Your task to perform on an android device: Find the nearest grocery store Image 0: 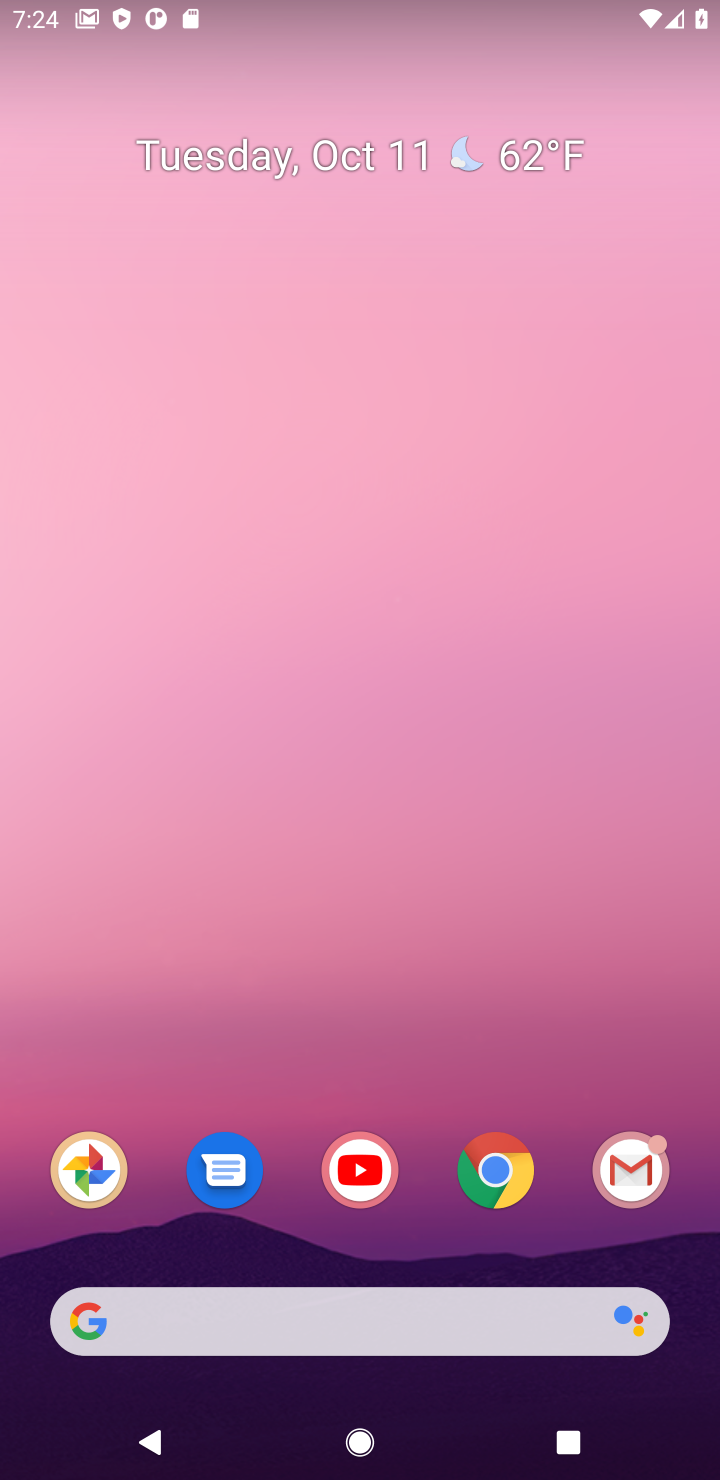
Step 0: drag from (251, 1274) to (279, 353)
Your task to perform on an android device: Find the nearest grocery store Image 1: 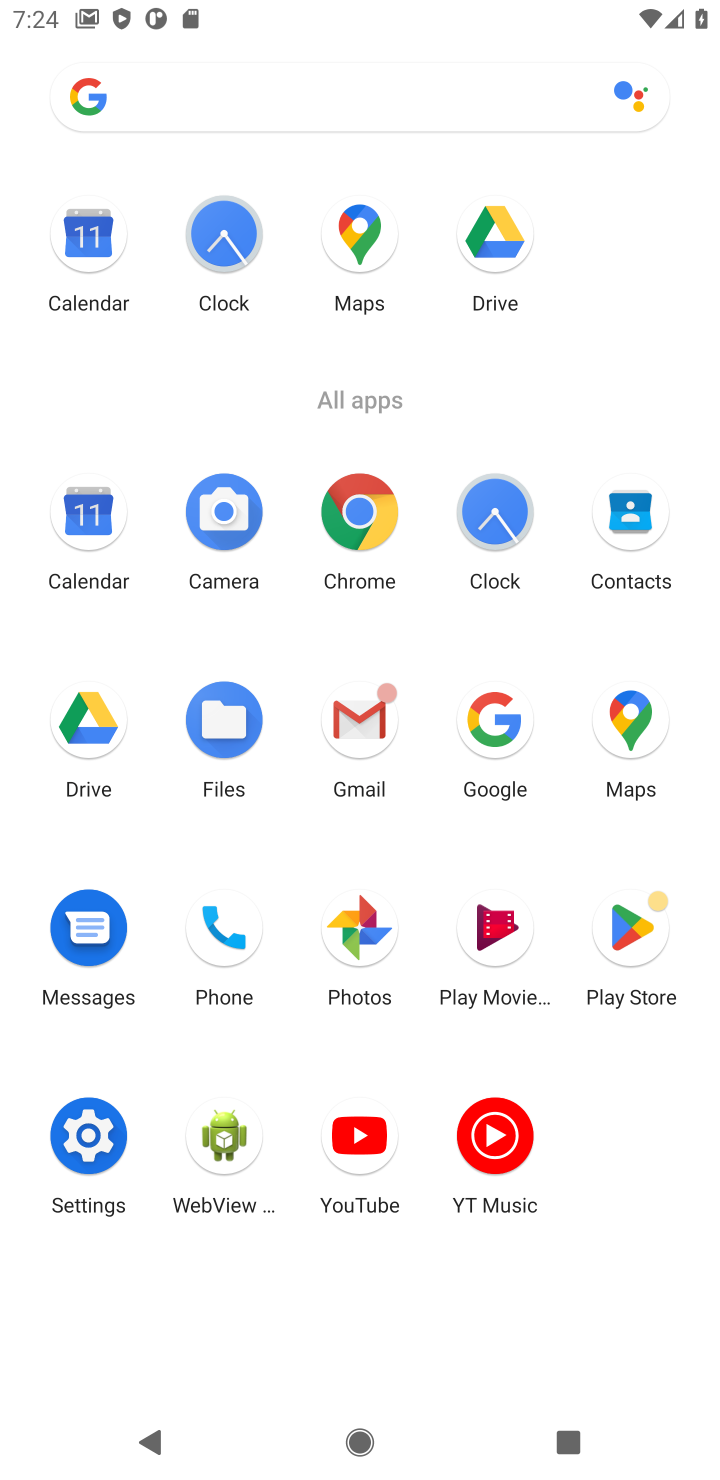
Step 1: click (483, 702)
Your task to perform on an android device: Find the nearest grocery store Image 2: 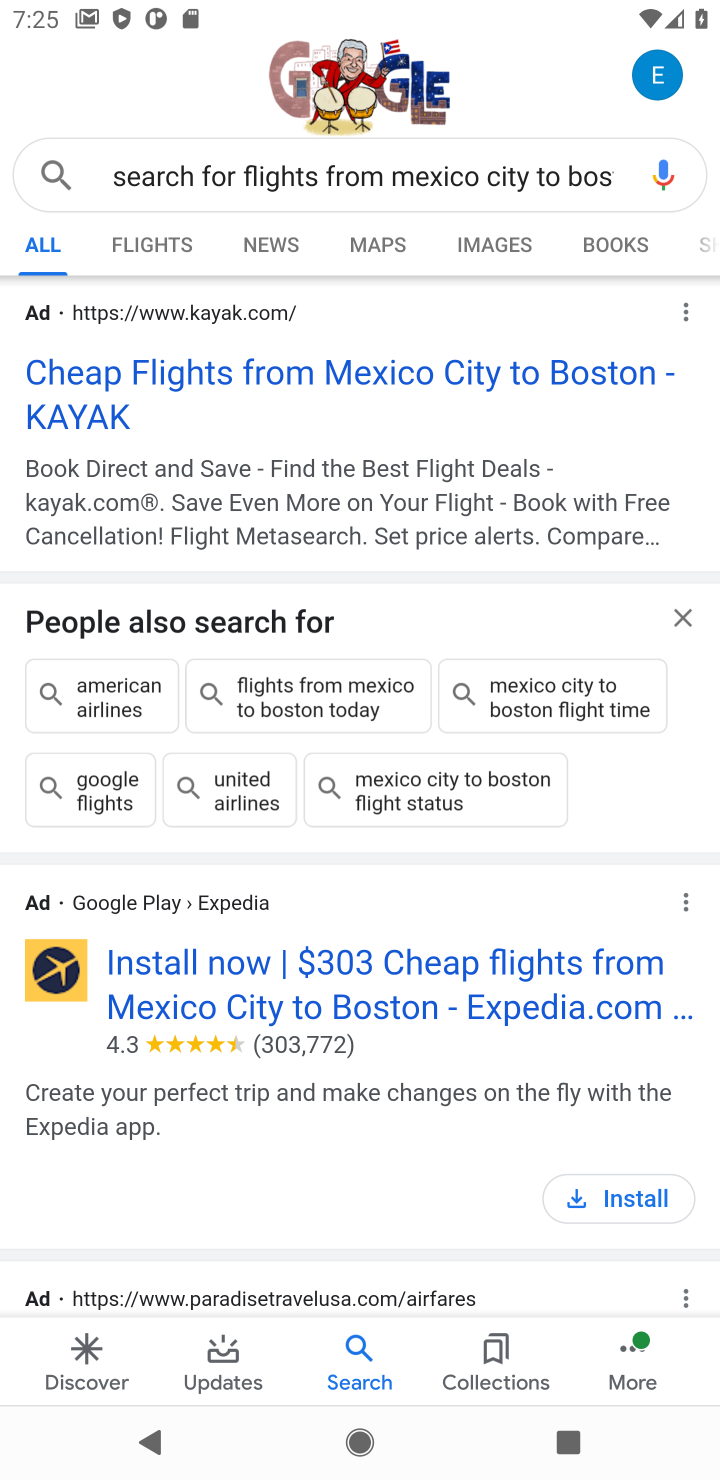
Step 2: click (434, 363)
Your task to perform on an android device: Find the nearest grocery store Image 3: 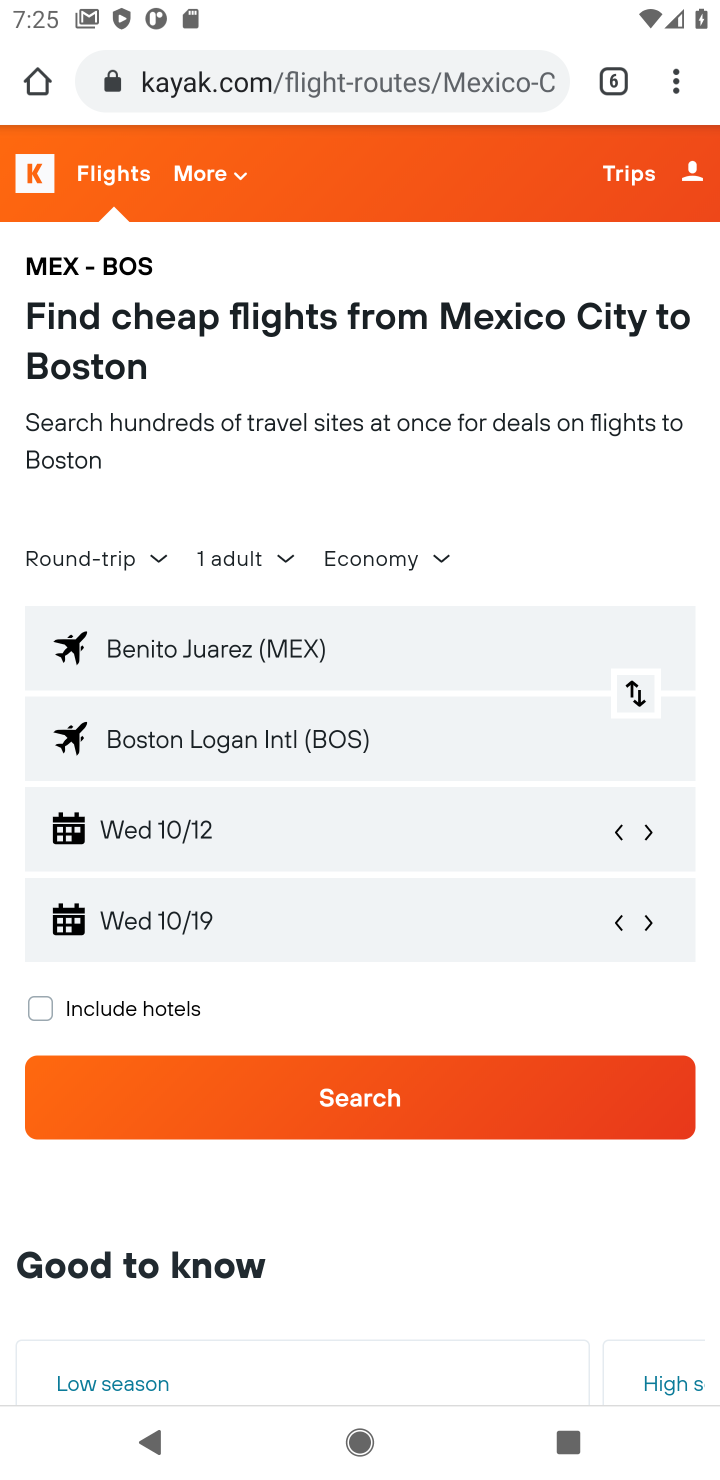
Step 3: press back button
Your task to perform on an android device: Find the nearest grocery store Image 4: 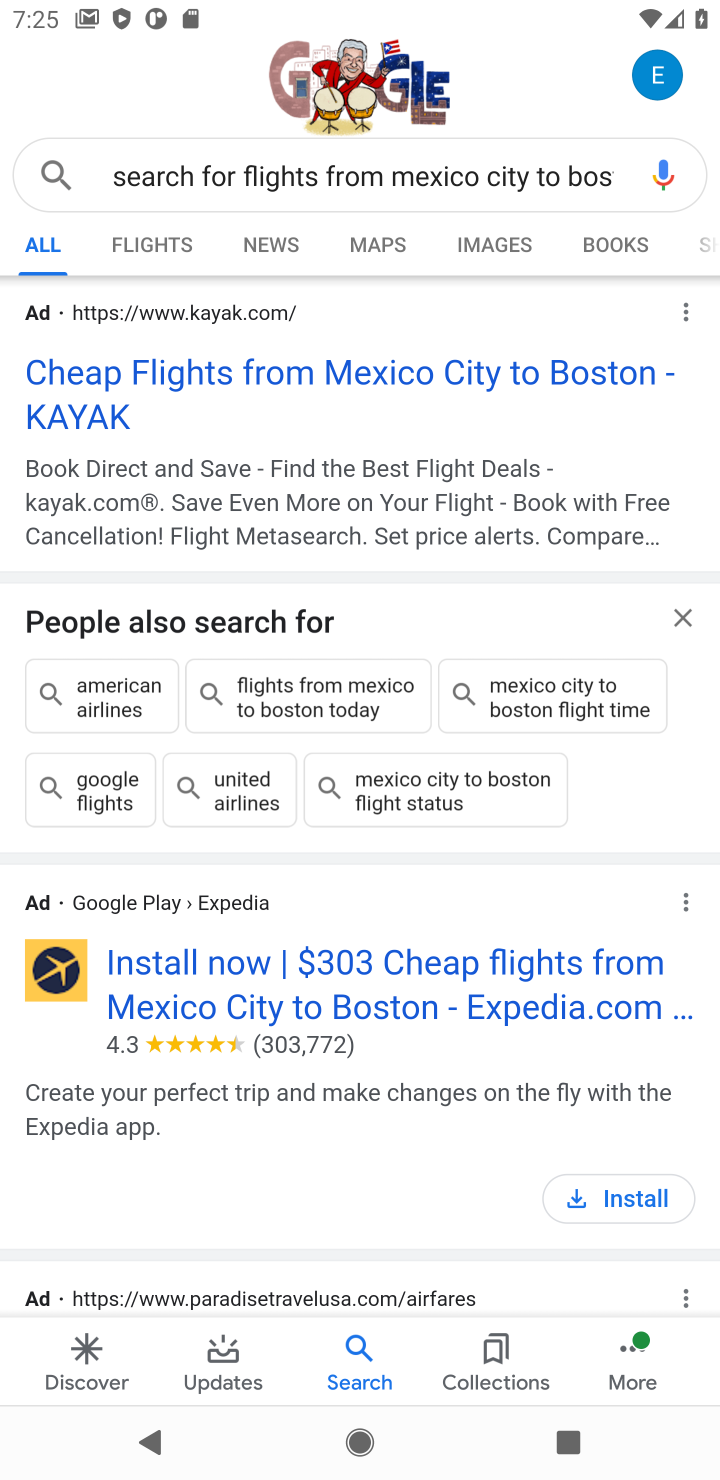
Step 4: click (341, 158)
Your task to perform on an android device: Find the nearest grocery store Image 5: 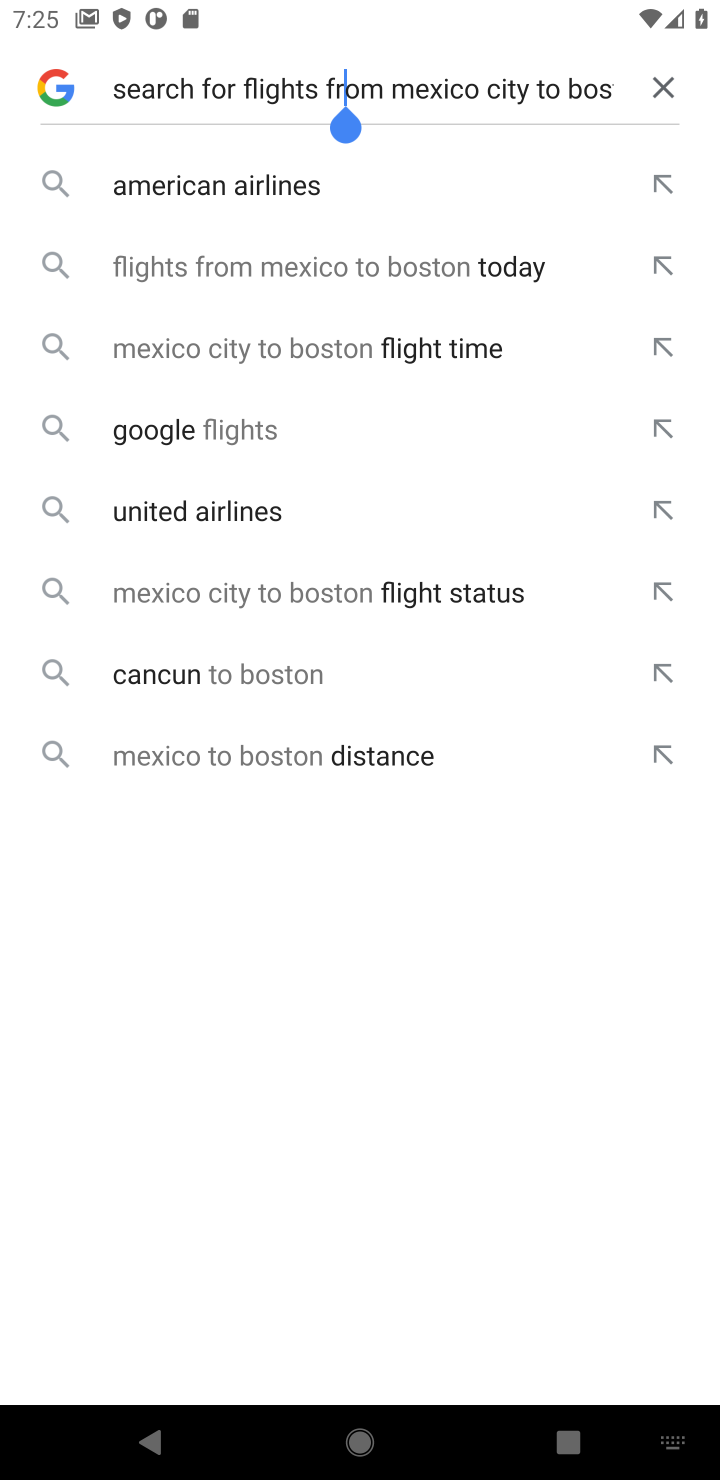
Step 5: click (660, 83)
Your task to perform on an android device: Find the nearest grocery store Image 6: 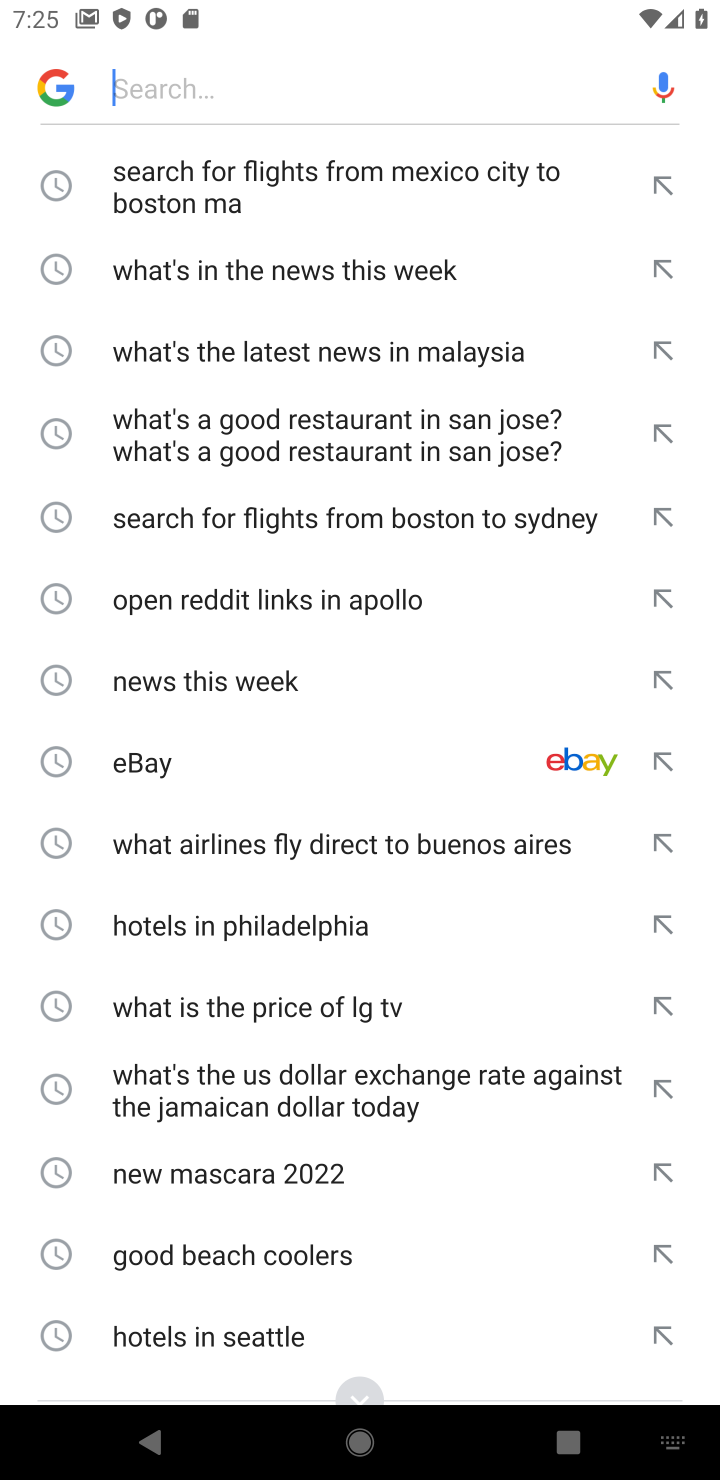
Step 6: click (328, 98)
Your task to perform on an android device: Find the nearest grocery store Image 7: 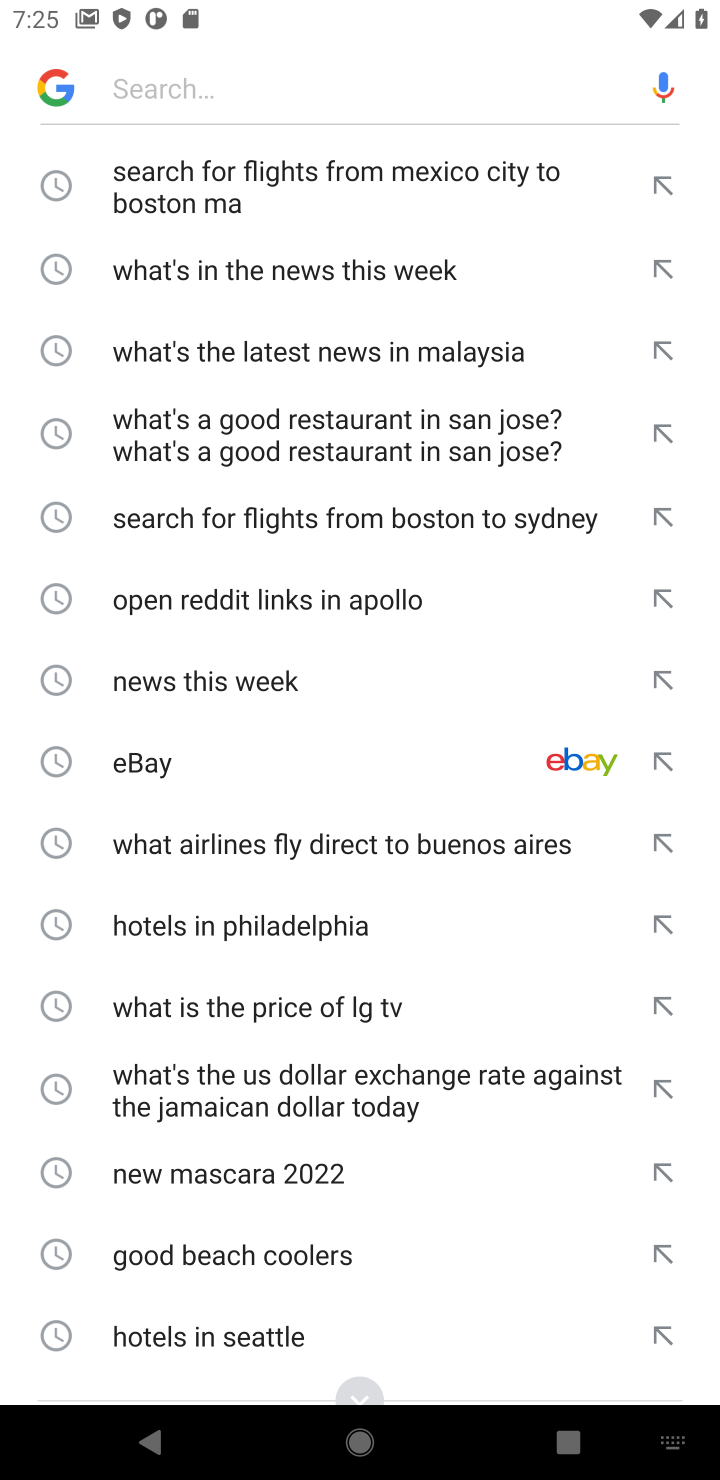
Step 7: click (328, 77)
Your task to perform on an android device: Find the nearest grocery store Image 8: 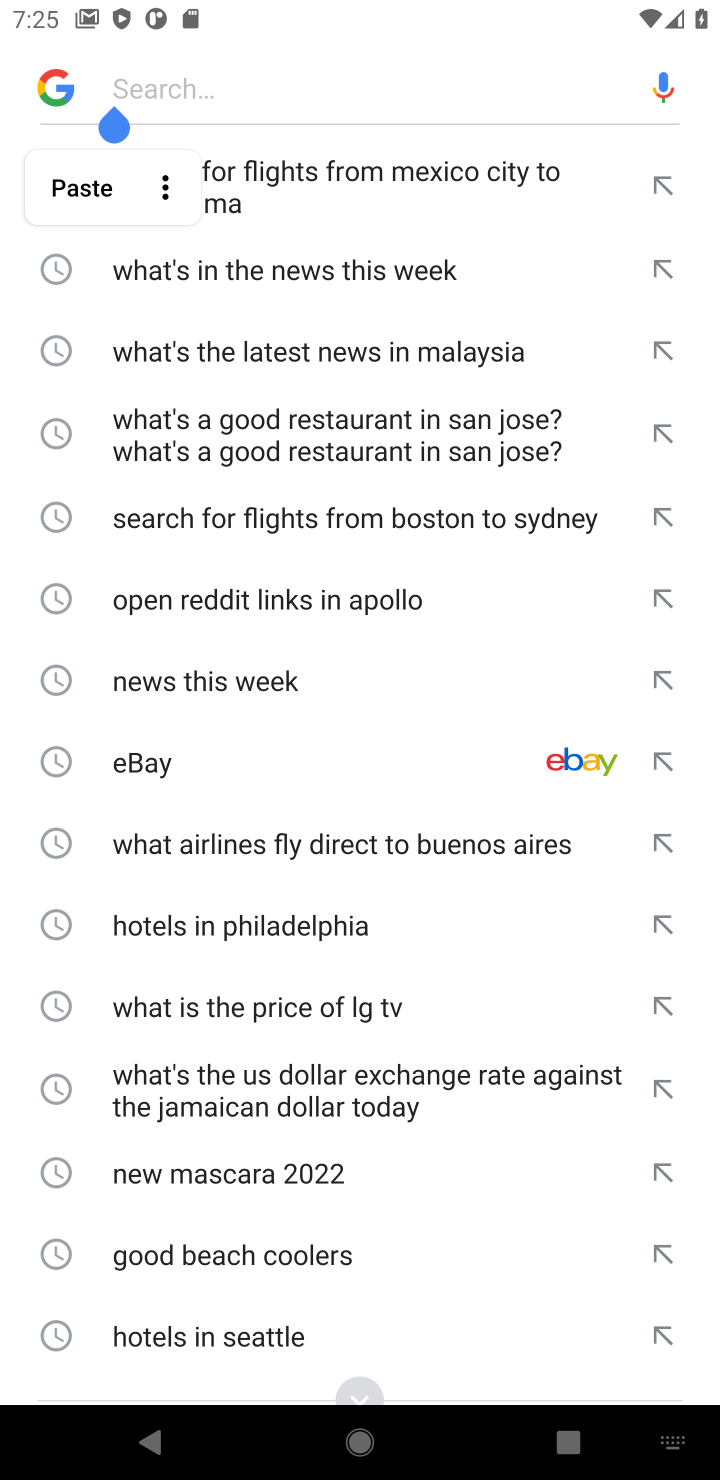
Step 8: type "Search for flights from Mexico city to Boston "
Your task to perform on an android device: Find the nearest grocery store Image 9: 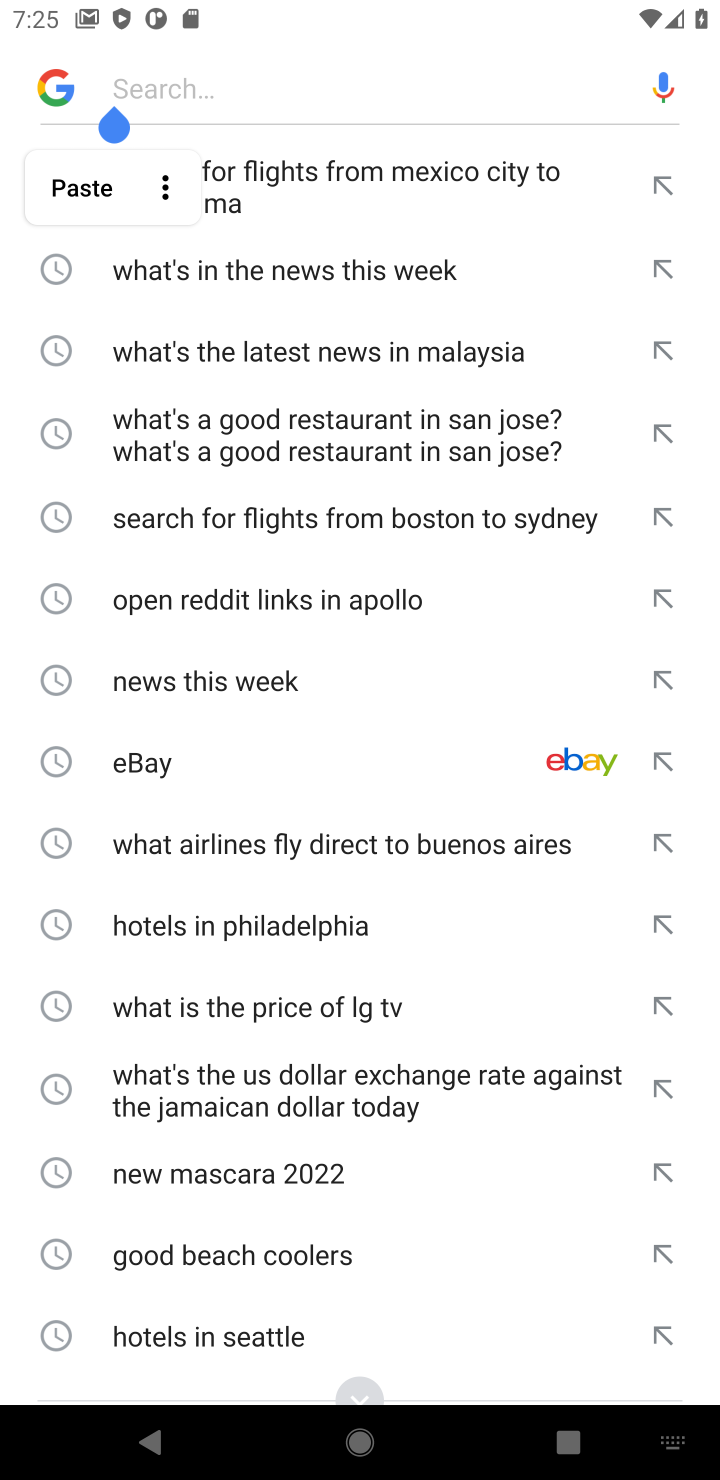
Step 9: click (94, 173)
Your task to perform on an android device: Find the nearest grocery store Image 10: 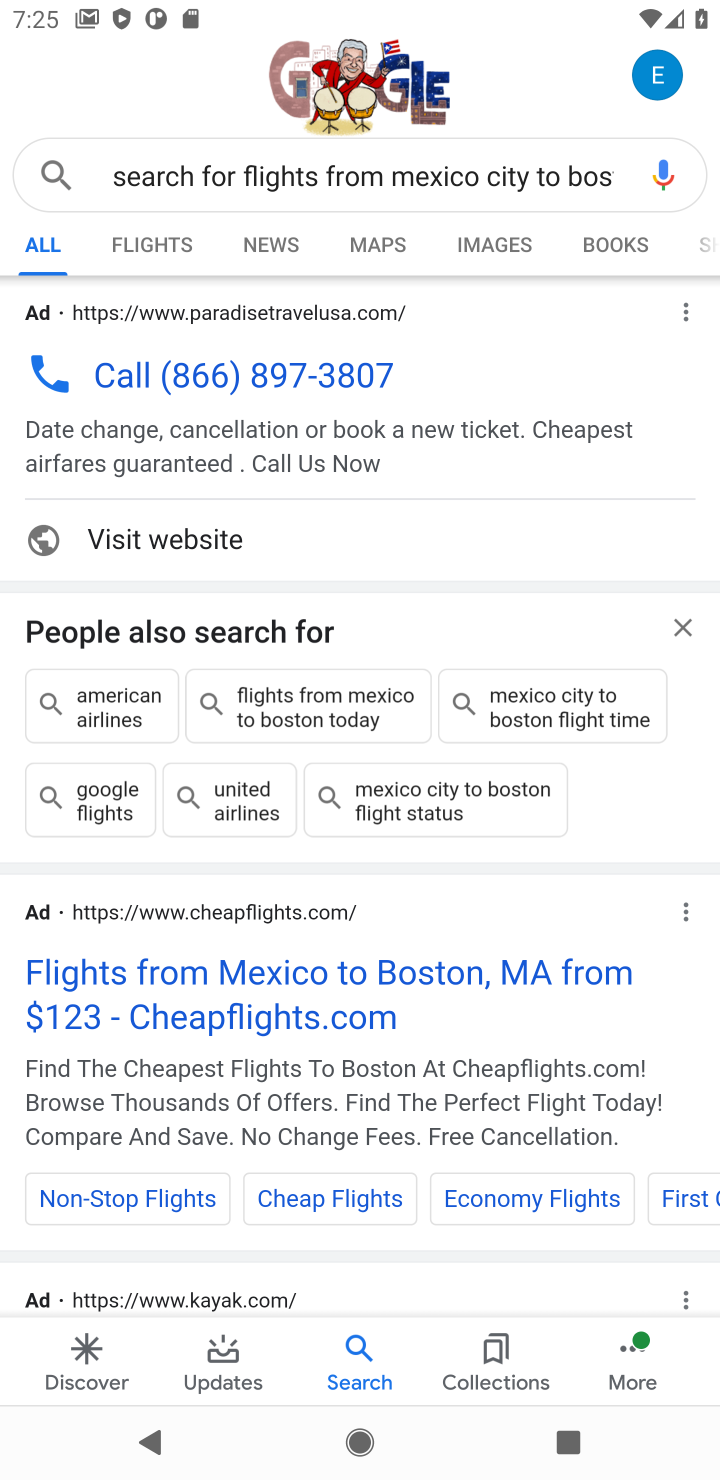
Step 10: click (278, 172)
Your task to perform on an android device: Find the nearest grocery store Image 11: 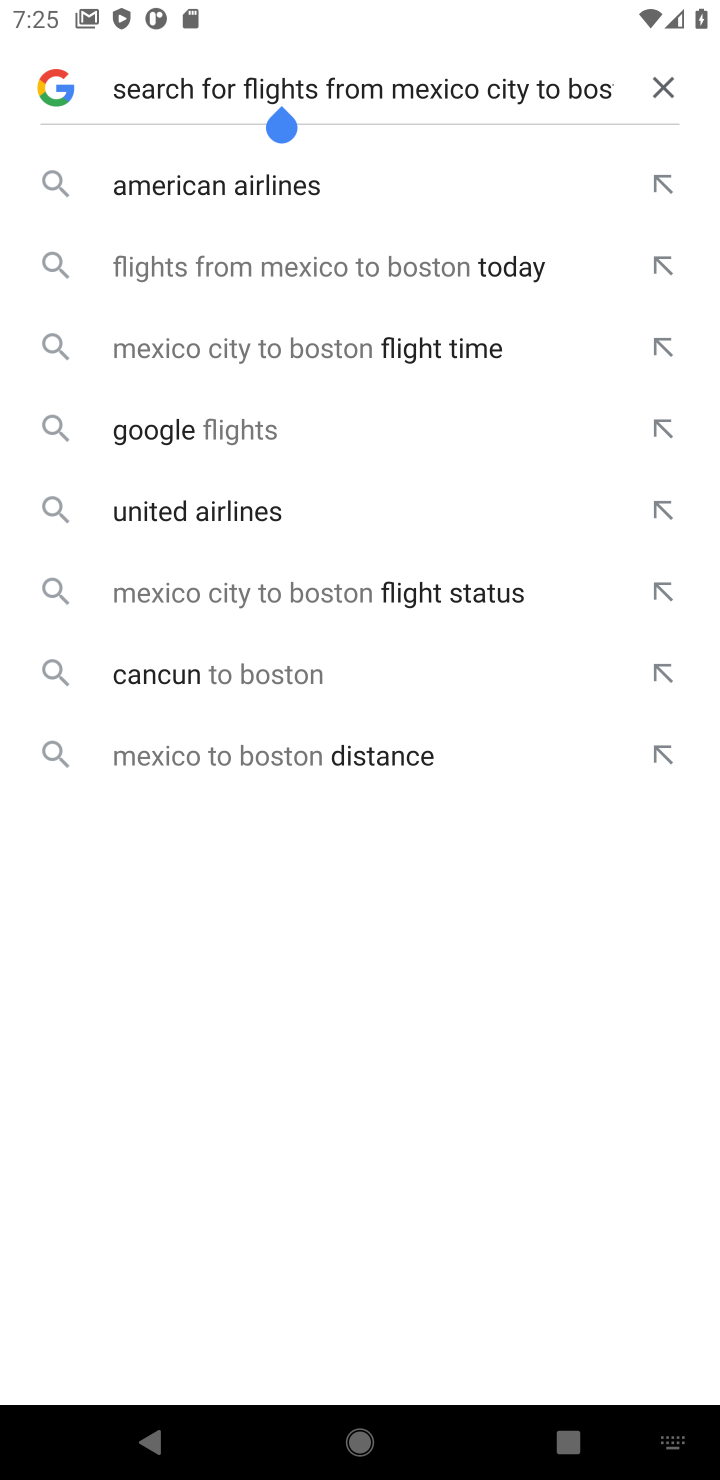
Step 11: click (658, 88)
Your task to perform on an android device: Find the nearest grocery store Image 12: 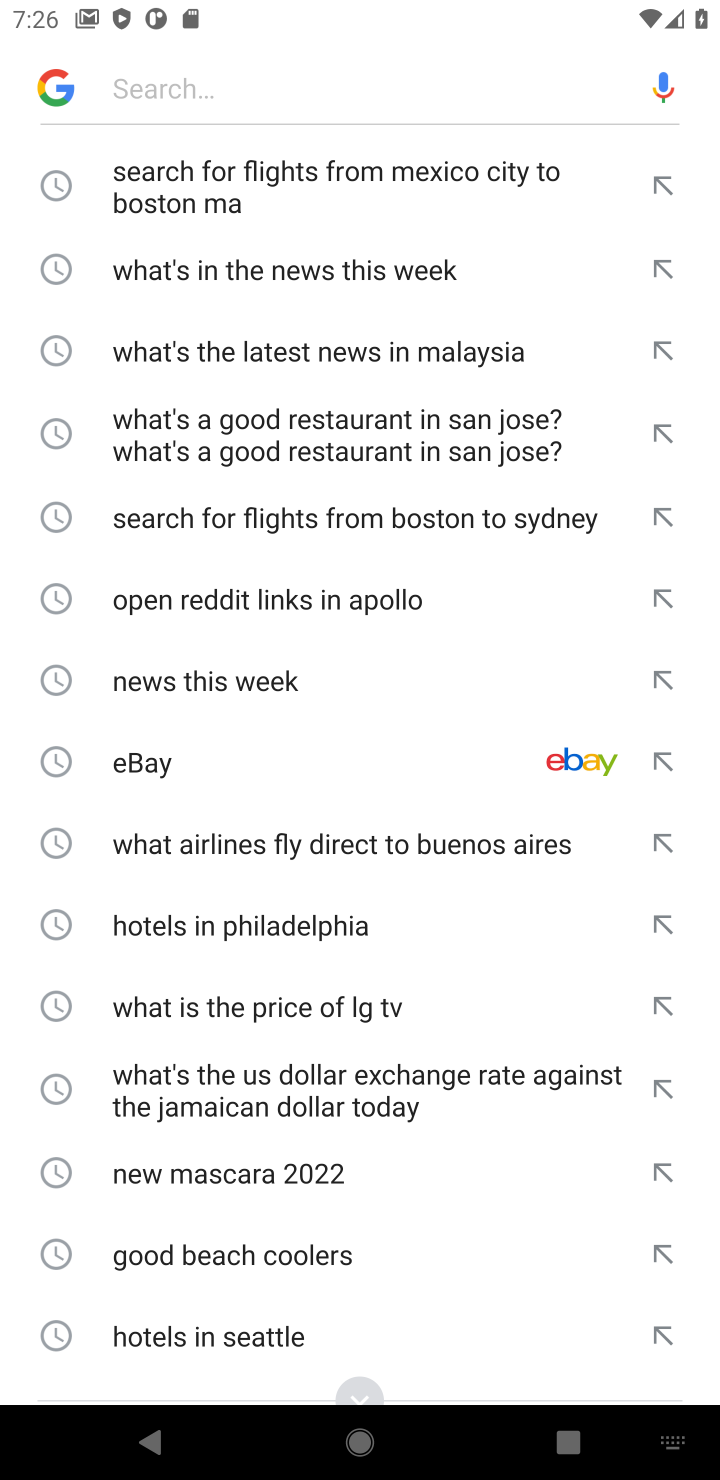
Step 12: click (427, 73)
Your task to perform on an android device: Find the nearest grocery store Image 13: 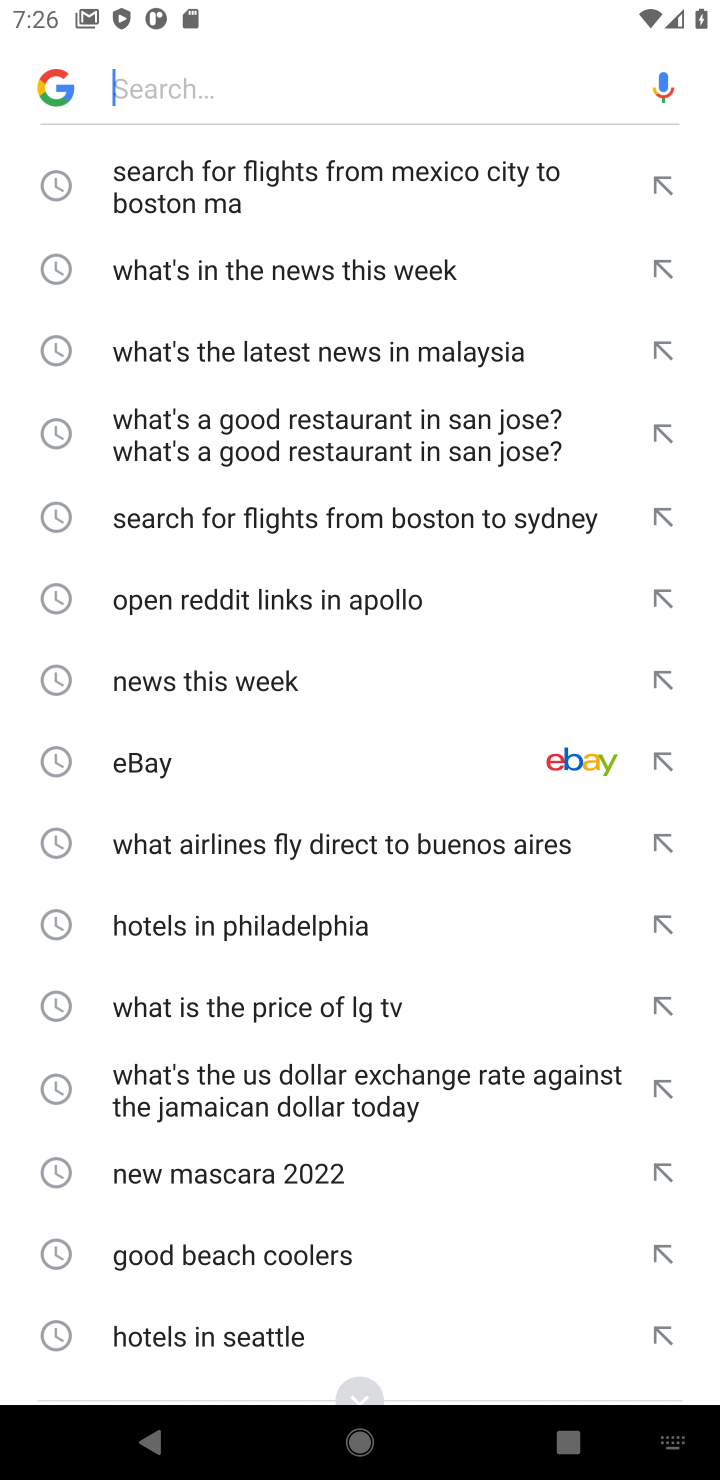
Step 13: type "Find the nearest grocery store "
Your task to perform on an android device: Find the nearest grocery store Image 14: 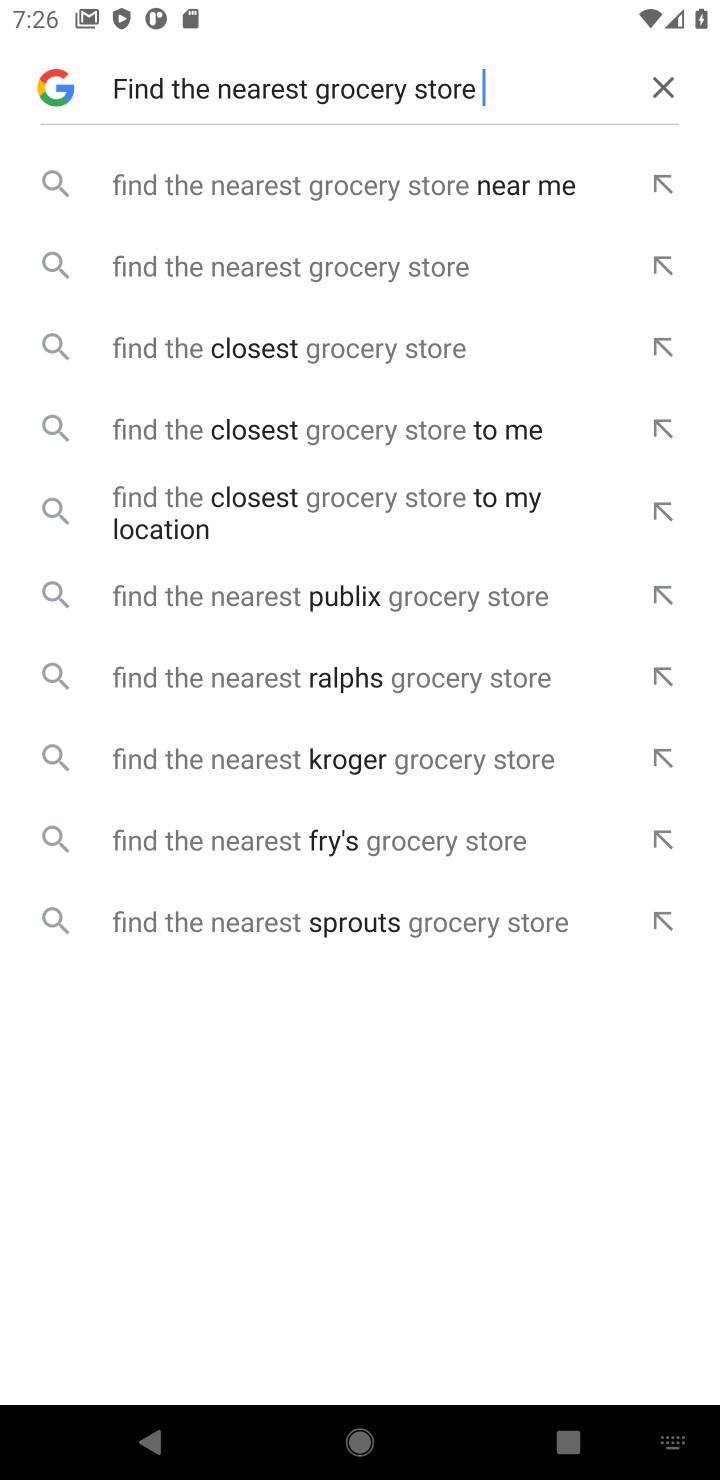
Step 14: click (266, 177)
Your task to perform on an android device: Find the nearest grocery store Image 15: 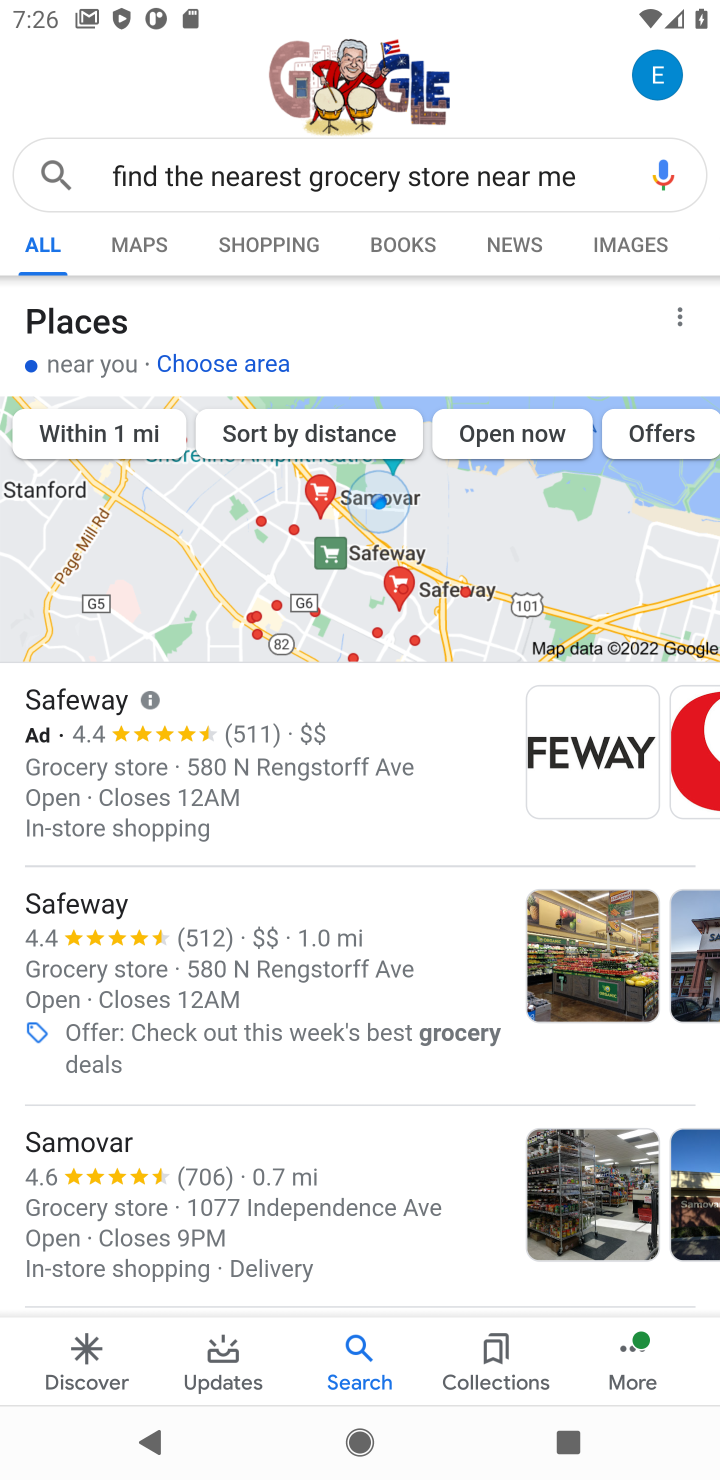
Step 15: task complete